Your task to perform on an android device: Check the news Image 0: 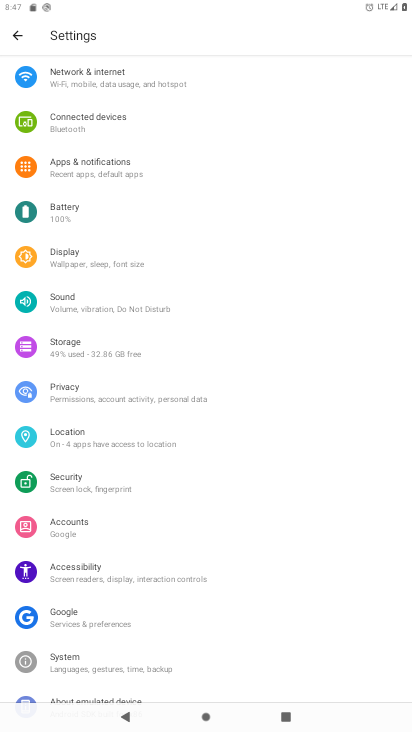
Step 0: press home button
Your task to perform on an android device: Check the news Image 1: 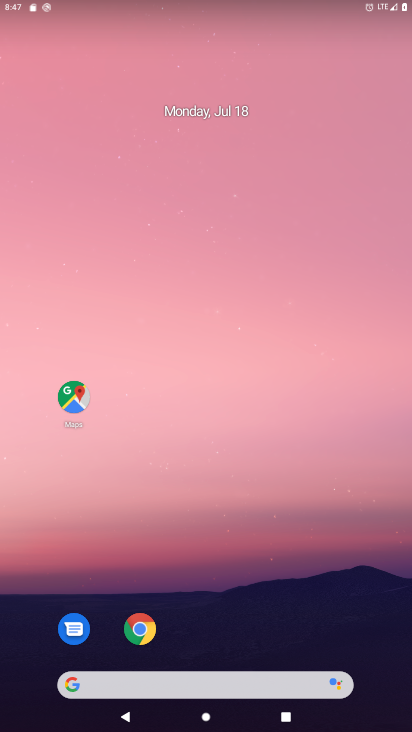
Step 1: click (179, 680)
Your task to perform on an android device: Check the news Image 2: 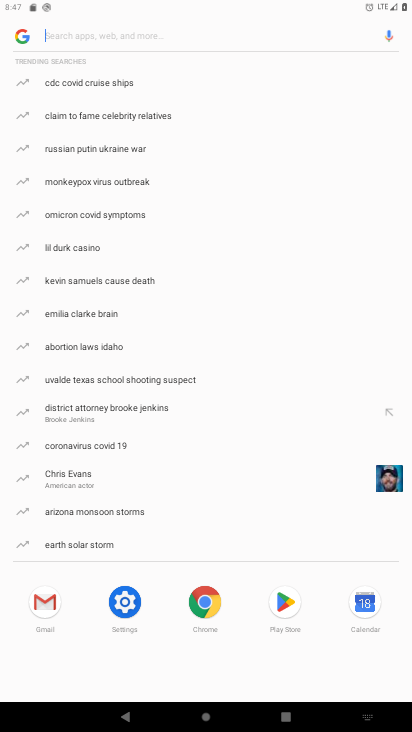
Step 2: type "news"
Your task to perform on an android device: Check the news Image 3: 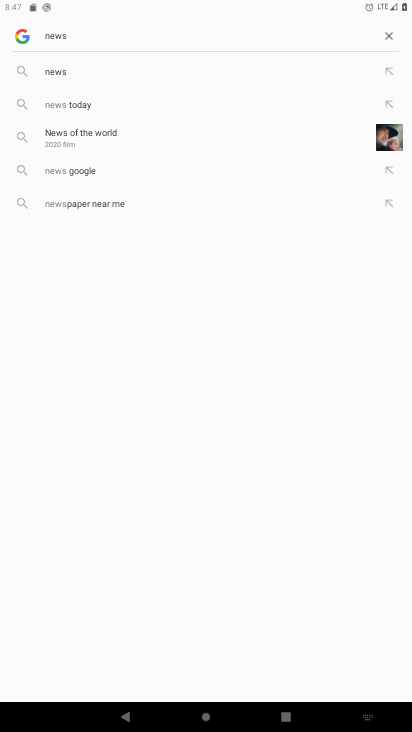
Step 3: click (48, 73)
Your task to perform on an android device: Check the news Image 4: 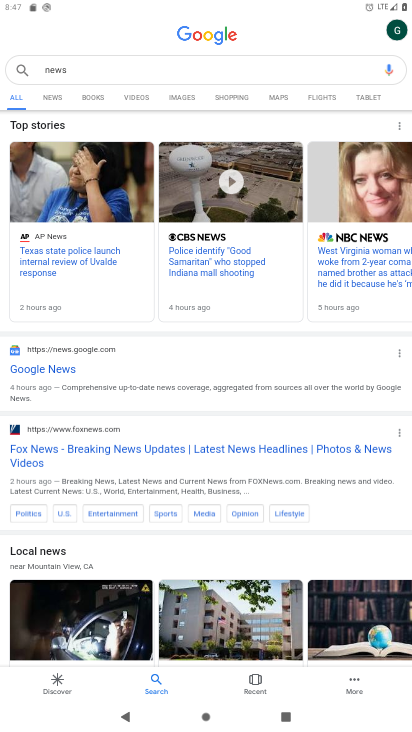
Step 4: task complete